Your task to perform on an android device: toggle airplane mode Image 0: 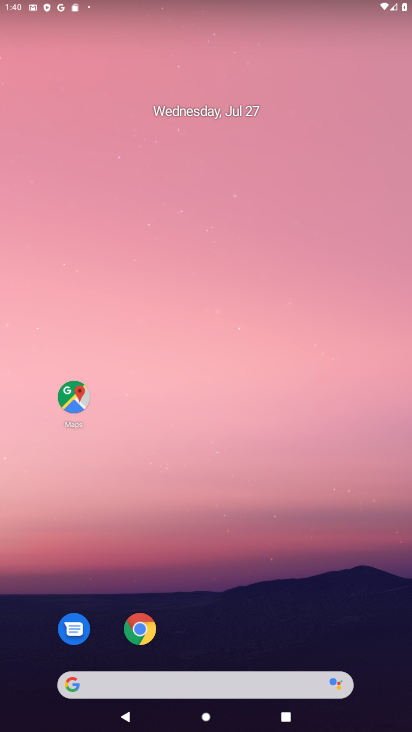
Step 0: drag from (286, 650) to (207, 562)
Your task to perform on an android device: toggle airplane mode Image 1: 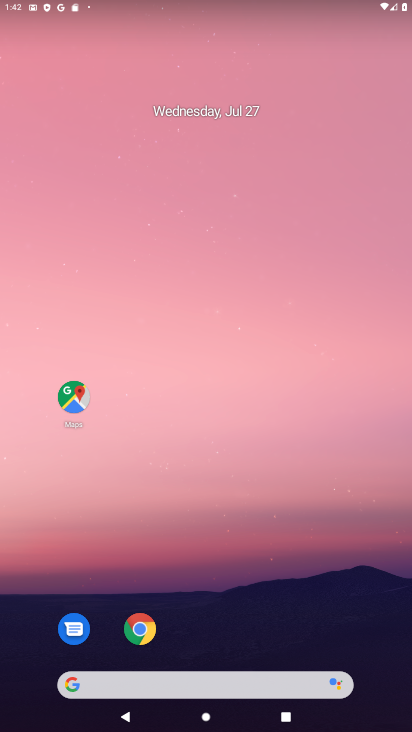
Step 1: task complete